Your task to perform on an android device: Open Google Image 0: 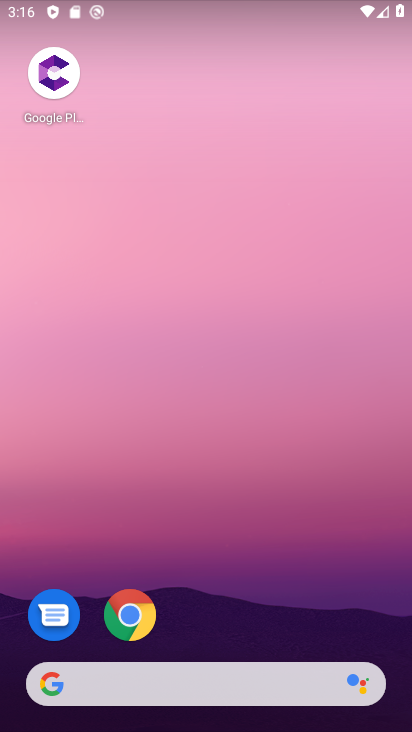
Step 0: drag from (247, 625) to (248, 147)
Your task to perform on an android device: Open Google Image 1: 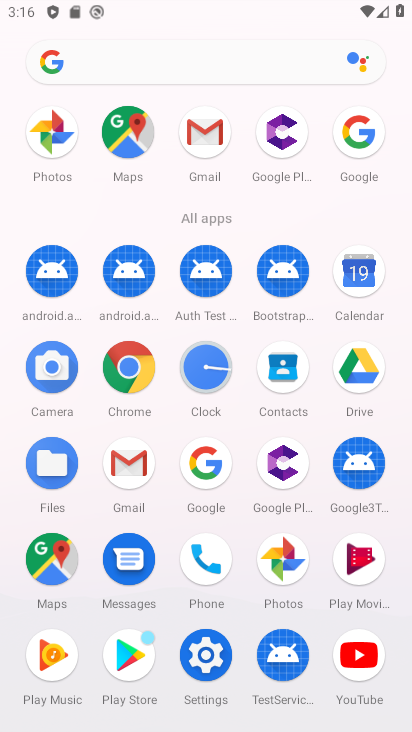
Step 1: click (348, 142)
Your task to perform on an android device: Open Google Image 2: 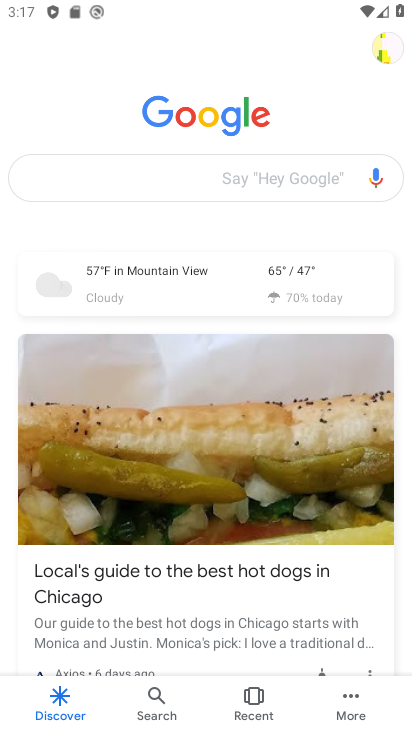
Step 2: task complete